Your task to perform on an android device: toggle notification dots Image 0: 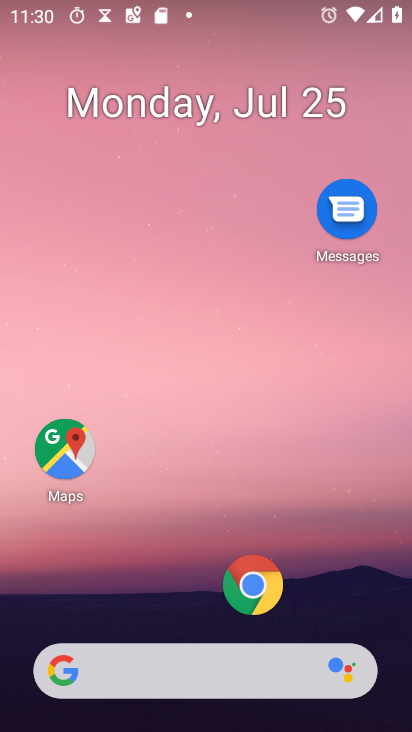
Step 0: press home button
Your task to perform on an android device: toggle notification dots Image 1: 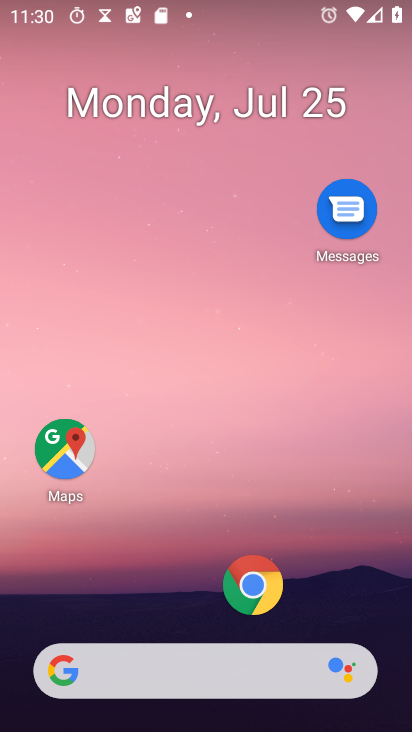
Step 1: drag from (185, 681) to (247, 135)
Your task to perform on an android device: toggle notification dots Image 2: 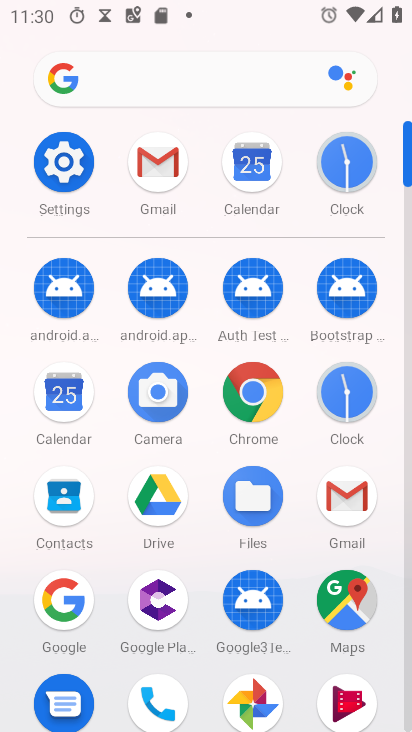
Step 2: click (62, 169)
Your task to perform on an android device: toggle notification dots Image 3: 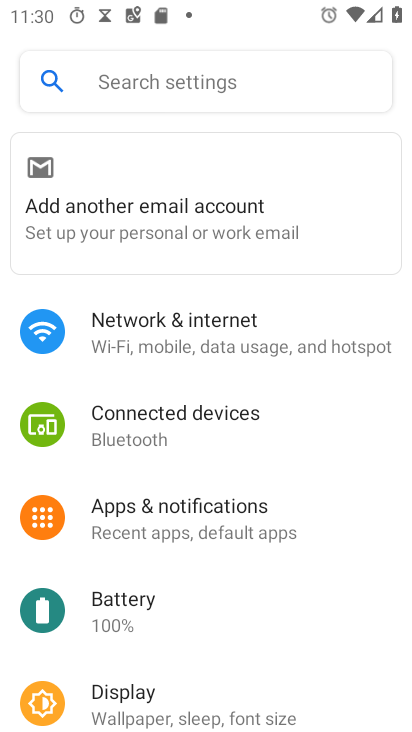
Step 3: click (214, 521)
Your task to perform on an android device: toggle notification dots Image 4: 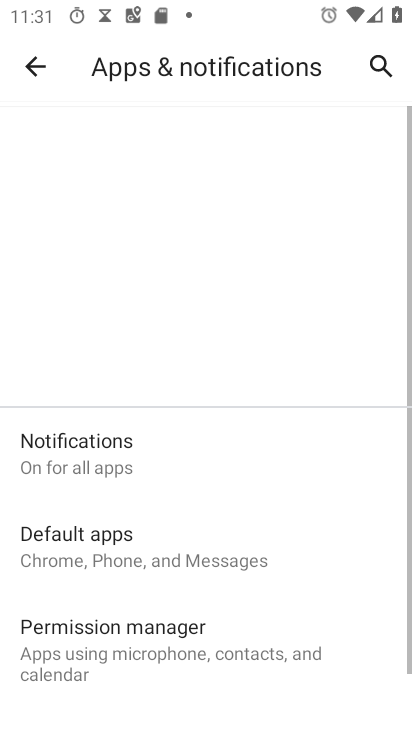
Step 4: click (110, 462)
Your task to perform on an android device: toggle notification dots Image 5: 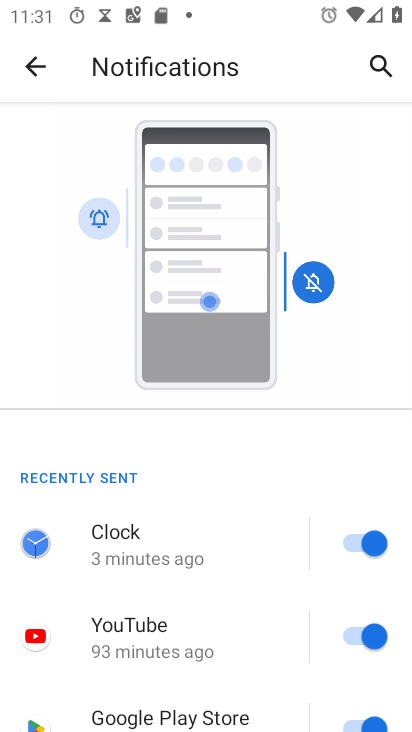
Step 5: drag from (188, 651) to (285, 174)
Your task to perform on an android device: toggle notification dots Image 6: 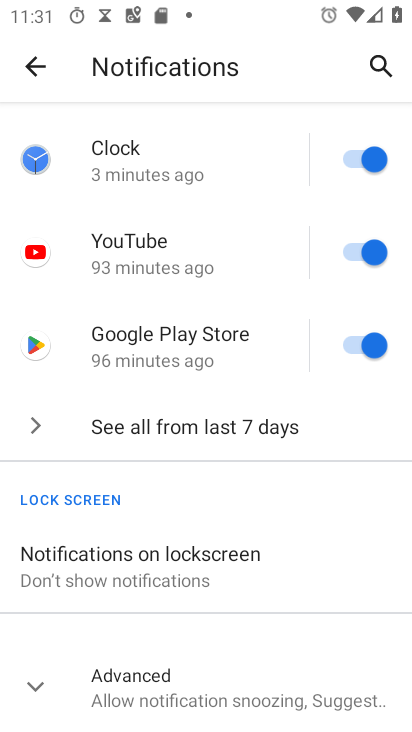
Step 6: drag from (234, 611) to (307, 324)
Your task to perform on an android device: toggle notification dots Image 7: 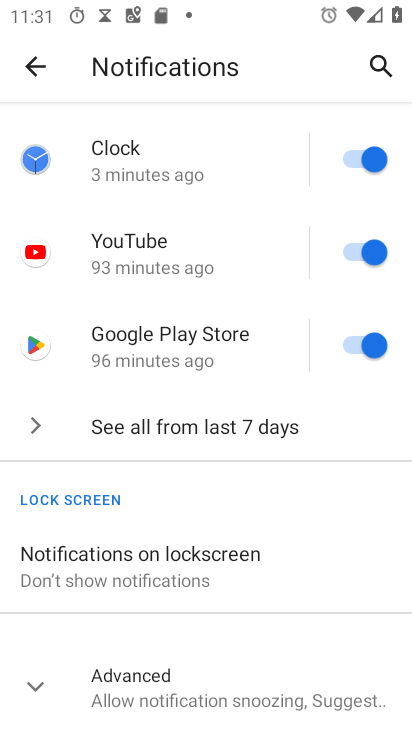
Step 7: click (161, 680)
Your task to perform on an android device: toggle notification dots Image 8: 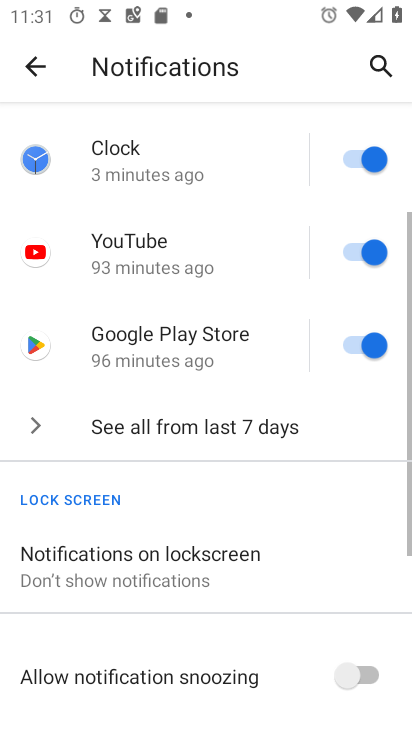
Step 8: drag from (236, 640) to (283, 73)
Your task to perform on an android device: toggle notification dots Image 9: 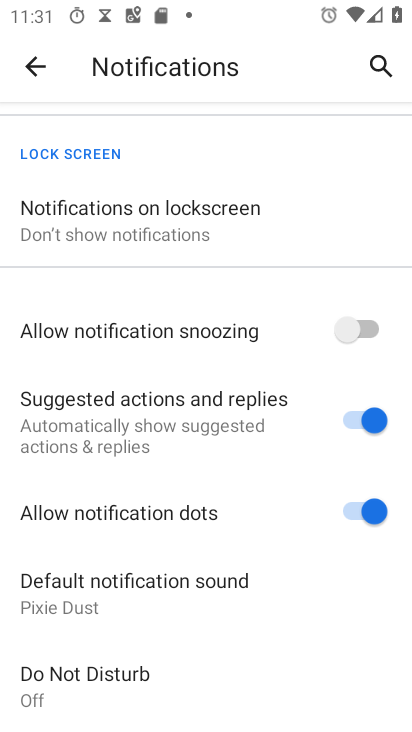
Step 9: click (349, 506)
Your task to perform on an android device: toggle notification dots Image 10: 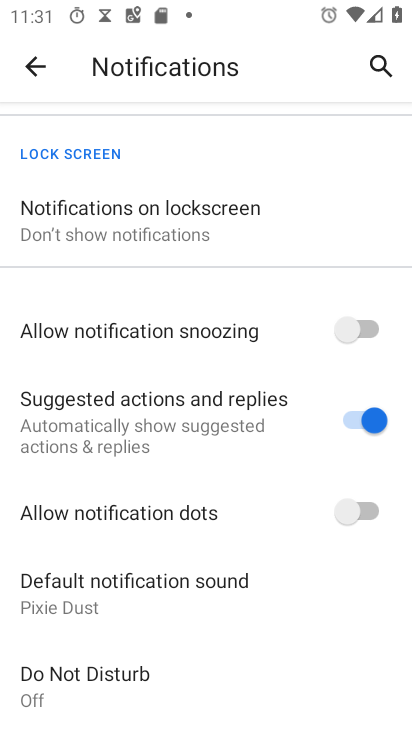
Step 10: task complete